Your task to perform on an android device: turn off airplane mode Image 0: 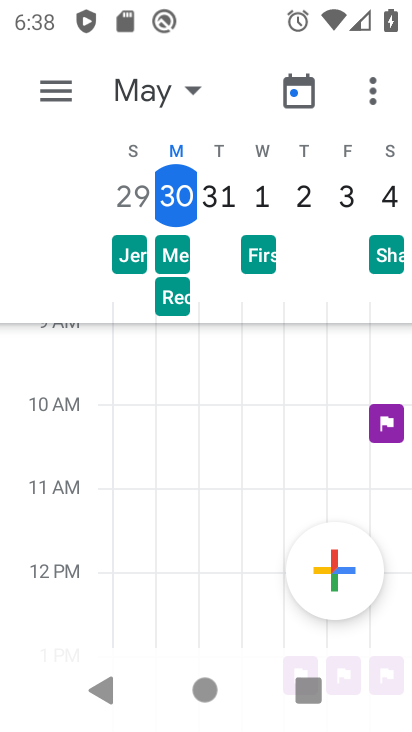
Step 0: press home button
Your task to perform on an android device: turn off airplane mode Image 1: 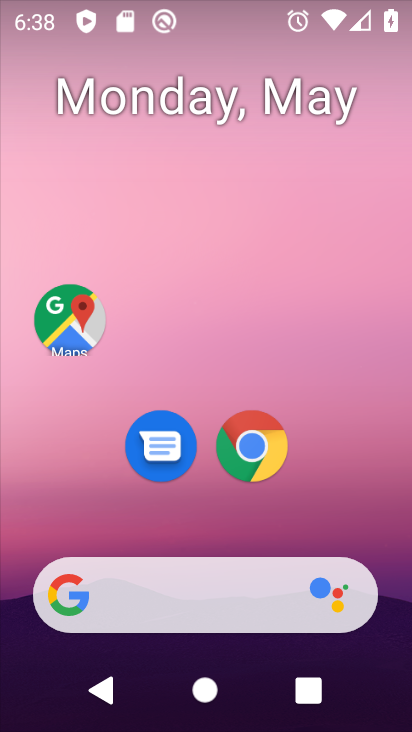
Step 1: drag from (344, 542) to (214, 103)
Your task to perform on an android device: turn off airplane mode Image 2: 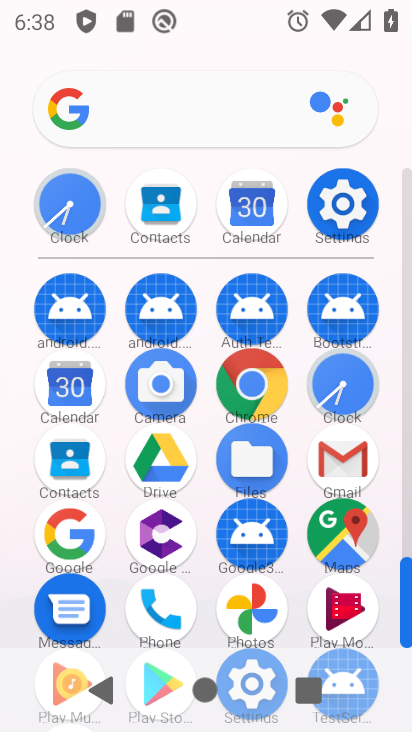
Step 2: click (339, 204)
Your task to perform on an android device: turn off airplane mode Image 3: 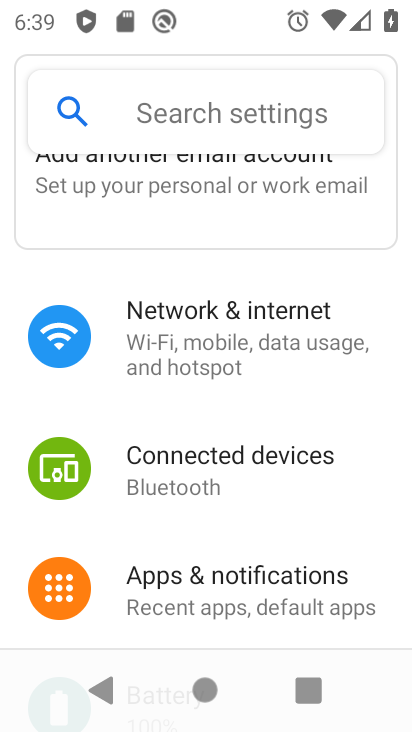
Step 3: click (205, 304)
Your task to perform on an android device: turn off airplane mode Image 4: 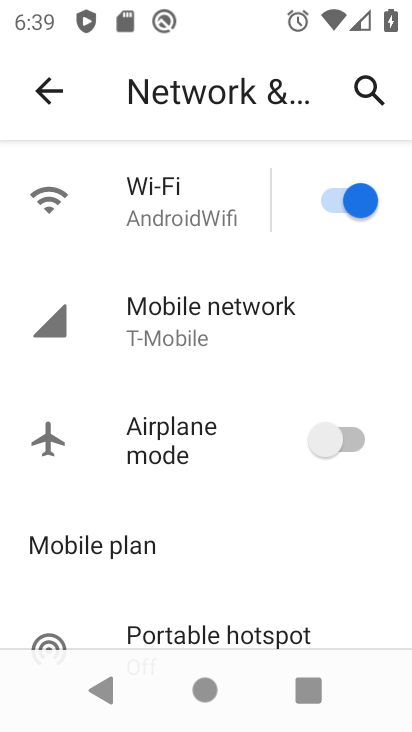
Step 4: task complete